Your task to perform on an android device: Open calendar and show me the fourth week of next month Image 0: 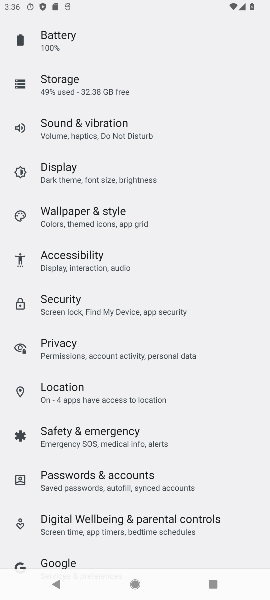
Step 0: press home button
Your task to perform on an android device: Open calendar and show me the fourth week of next month Image 1: 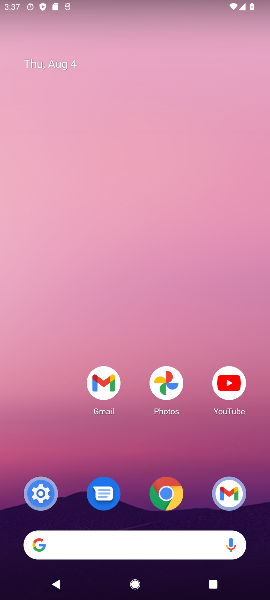
Step 1: drag from (99, 418) to (196, 61)
Your task to perform on an android device: Open calendar and show me the fourth week of next month Image 2: 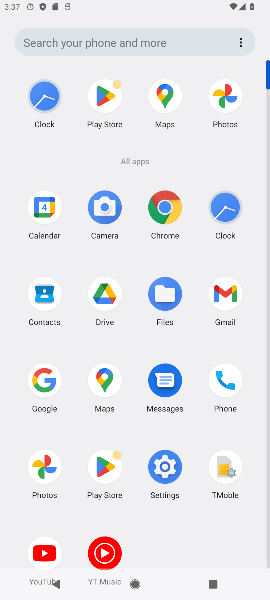
Step 2: click (35, 223)
Your task to perform on an android device: Open calendar and show me the fourth week of next month Image 3: 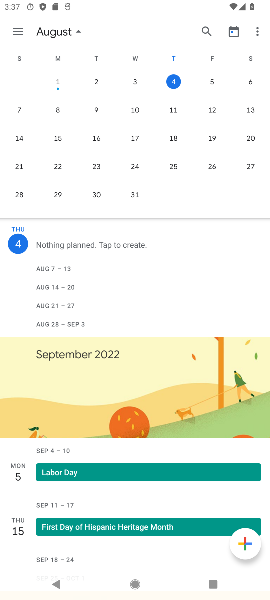
Step 3: drag from (227, 120) to (34, 172)
Your task to perform on an android device: Open calendar and show me the fourth week of next month Image 4: 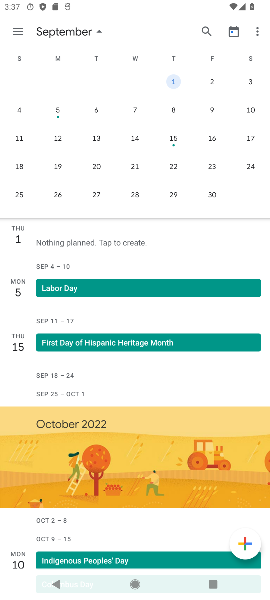
Step 4: click (54, 165)
Your task to perform on an android device: Open calendar and show me the fourth week of next month Image 5: 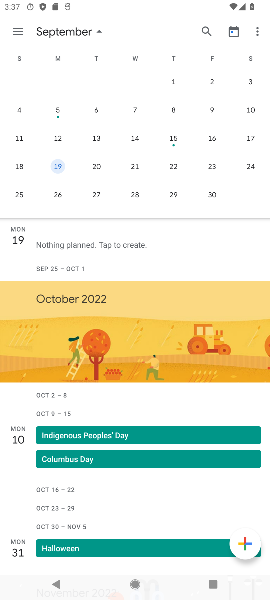
Step 5: task complete